Your task to perform on an android device: Search for "sony triple a" on amazon.com, select the first entry, and add it to the cart. Image 0: 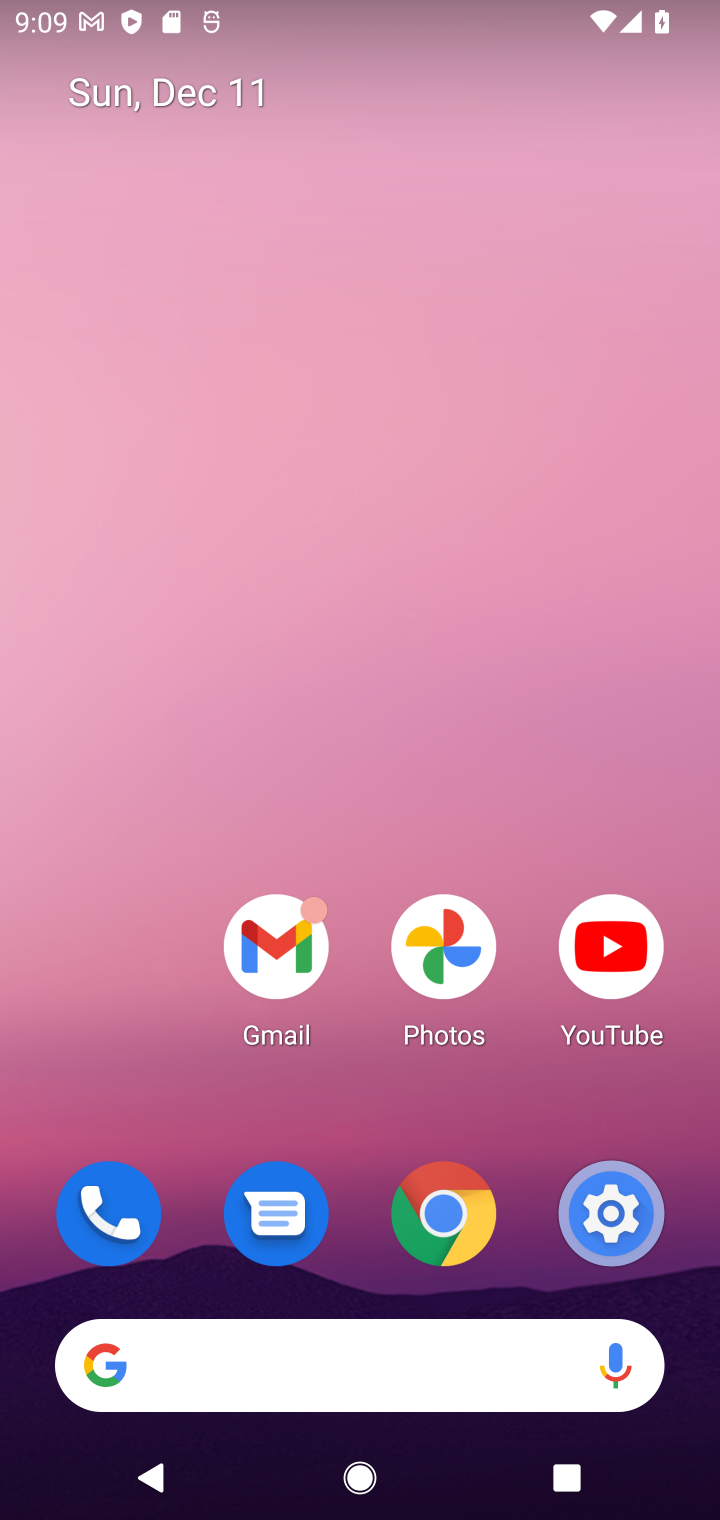
Step 0: click (358, 1351)
Your task to perform on an android device: Search for "sony triple a" on amazon.com, select the first entry, and add it to the cart. Image 1: 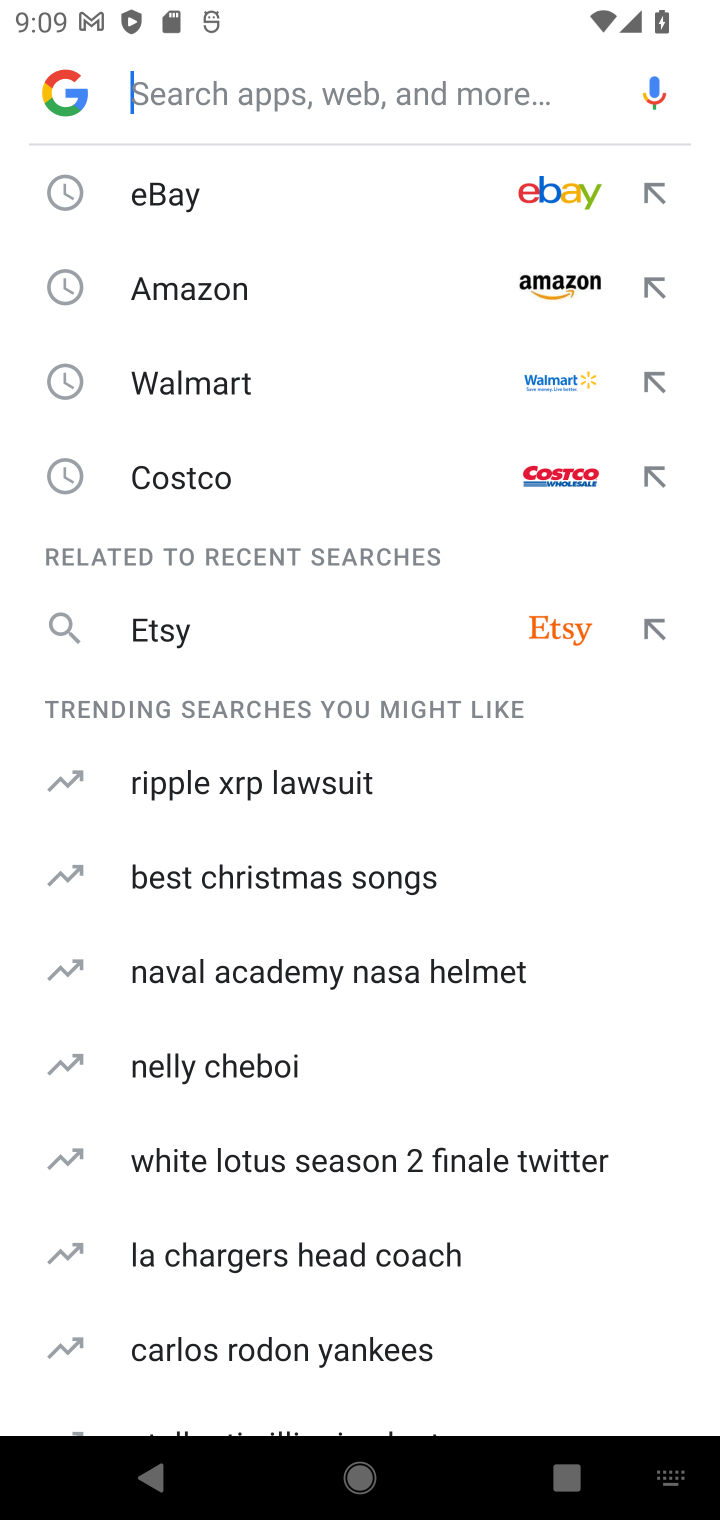
Step 1: type "sony triple a"
Your task to perform on an android device: Search for "sony triple a" on amazon.com, select the first entry, and add it to the cart. Image 2: 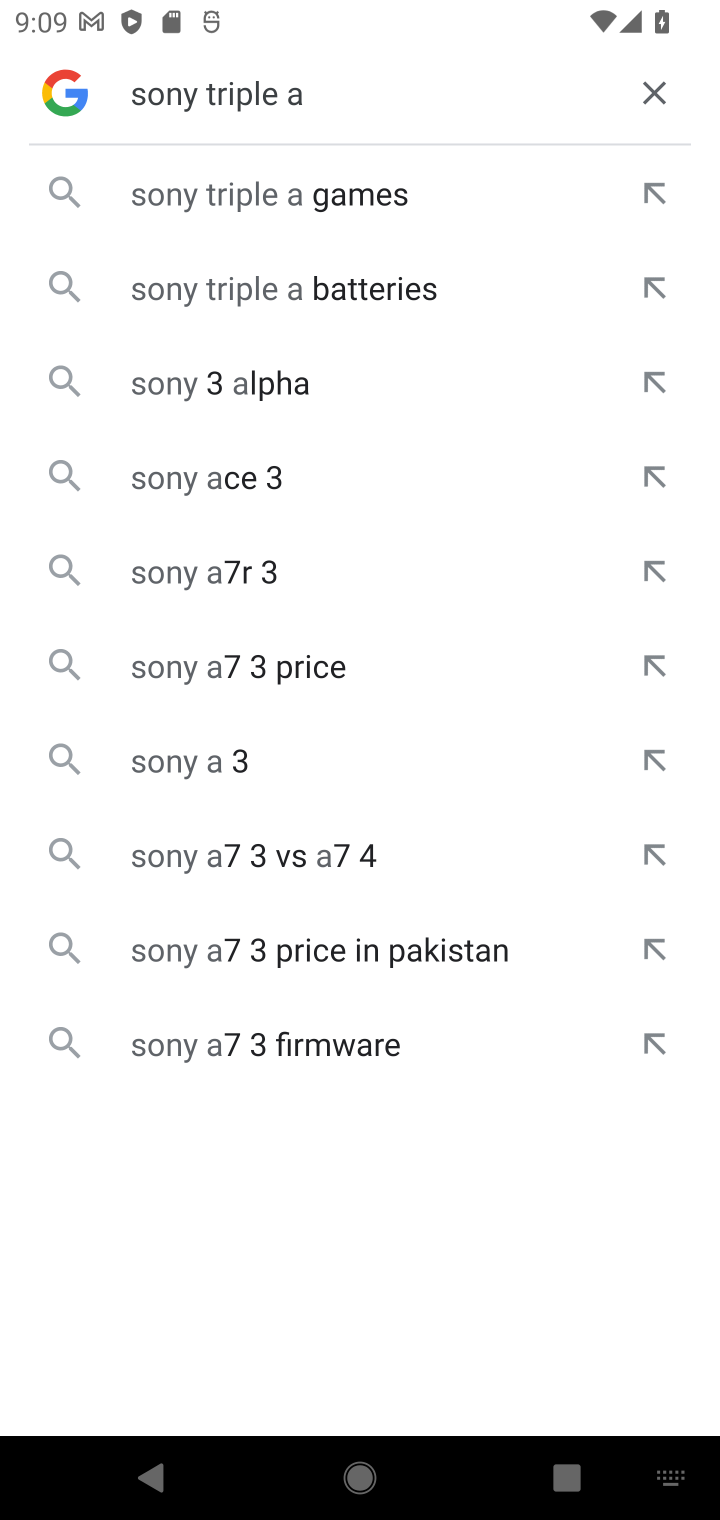
Step 2: click (653, 91)
Your task to perform on an android device: Search for "sony triple a" on amazon.com, select the first entry, and add it to the cart. Image 3: 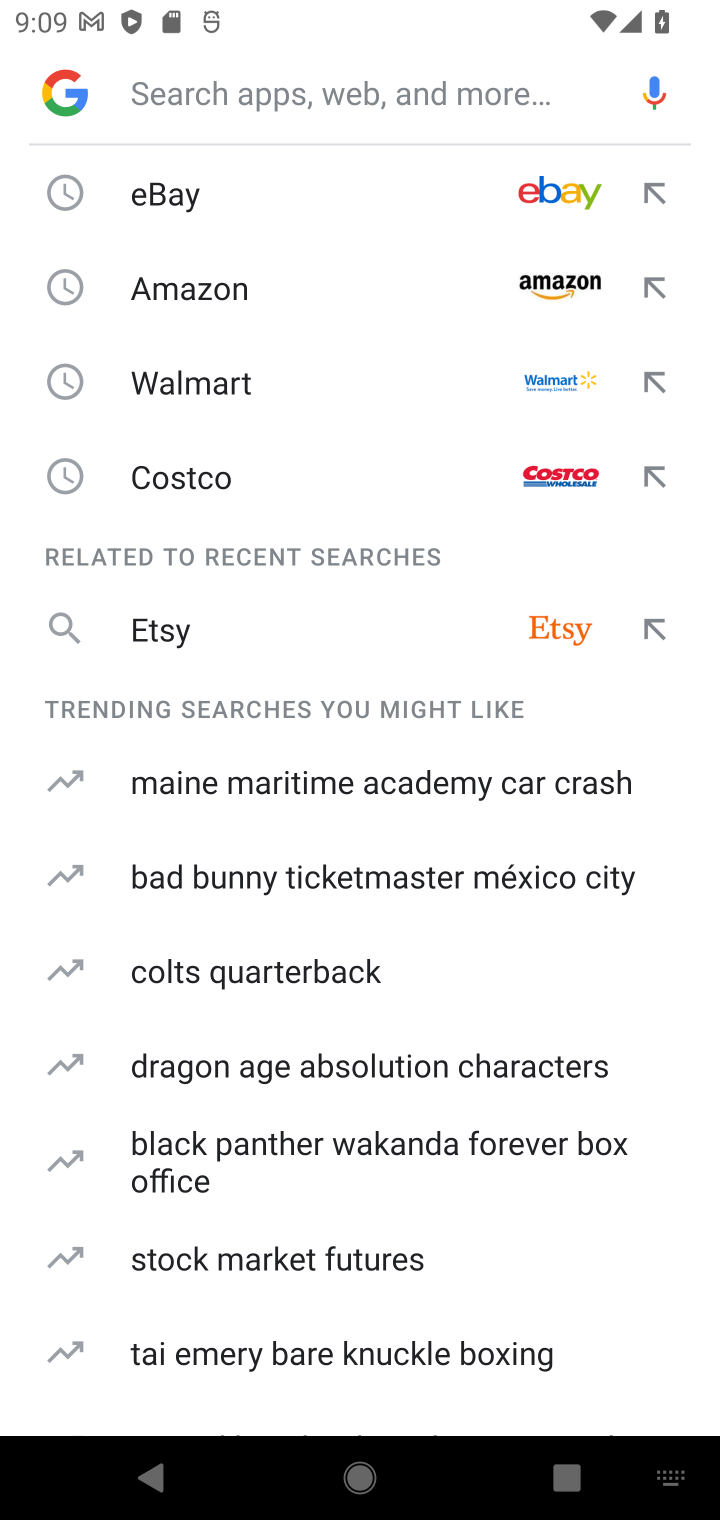
Step 3: type "amazon"
Your task to perform on an android device: Search for "sony triple a" on amazon.com, select the first entry, and add it to the cart. Image 4: 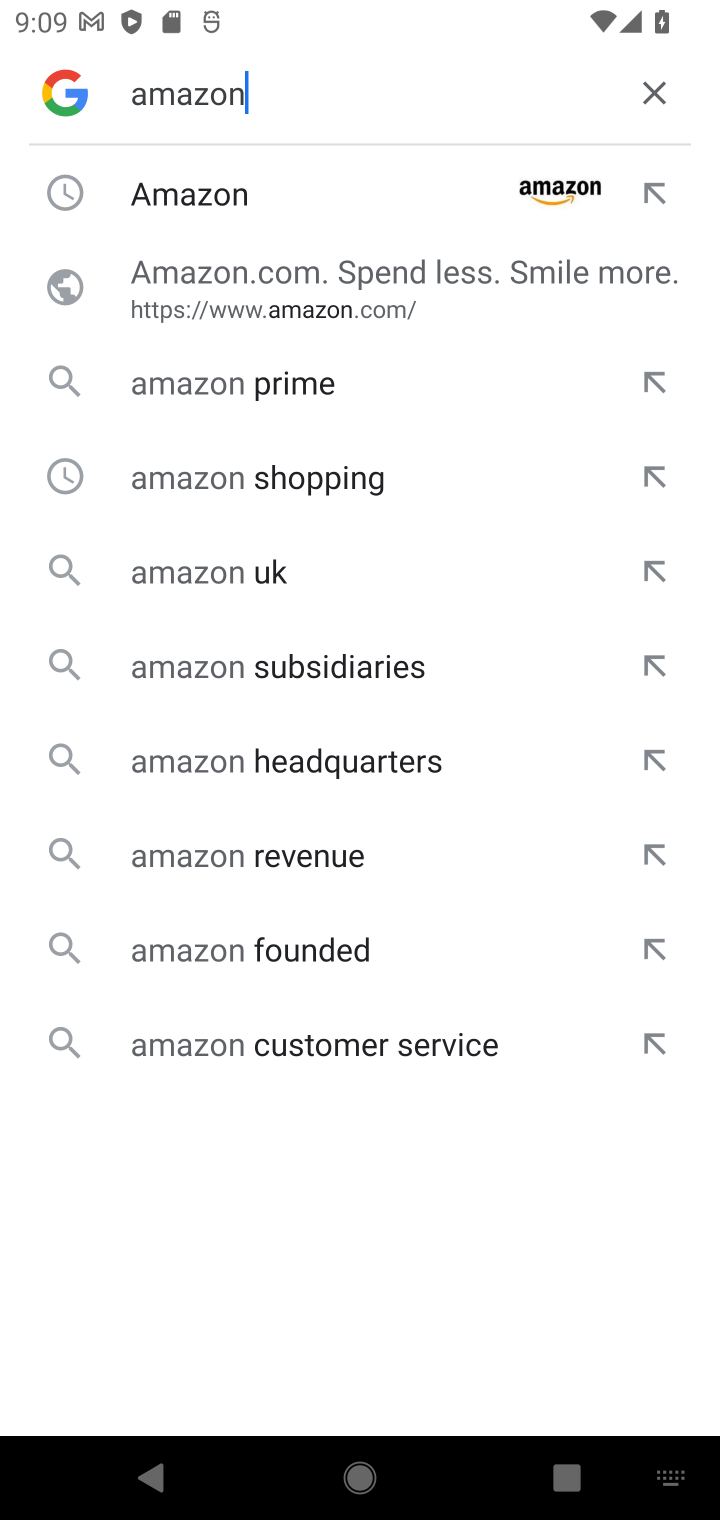
Step 4: click (302, 202)
Your task to perform on an android device: Search for "sony triple a" on amazon.com, select the first entry, and add it to the cart. Image 5: 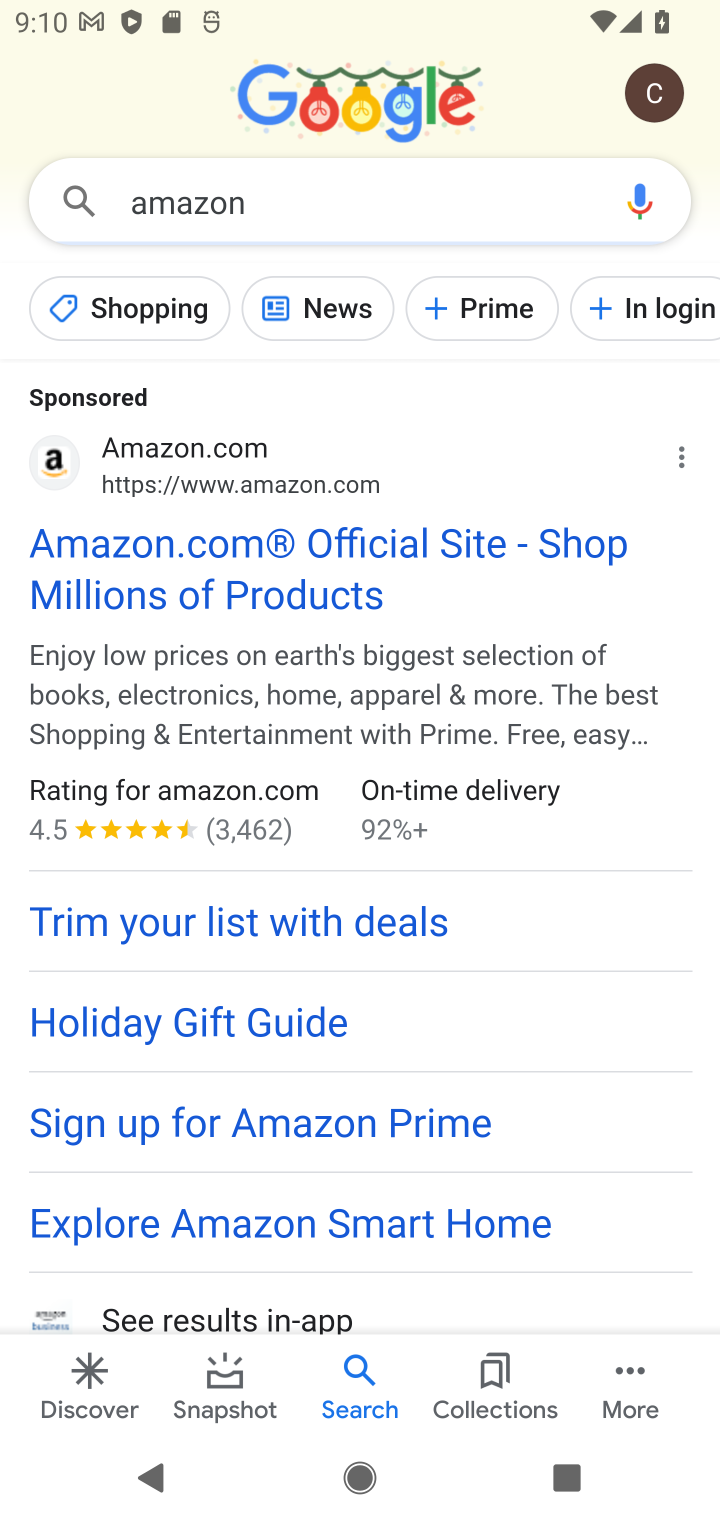
Step 5: click (237, 547)
Your task to perform on an android device: Search for "sony triple a" on amazon.com, select the first entry, and add it to the cart. Image 6: 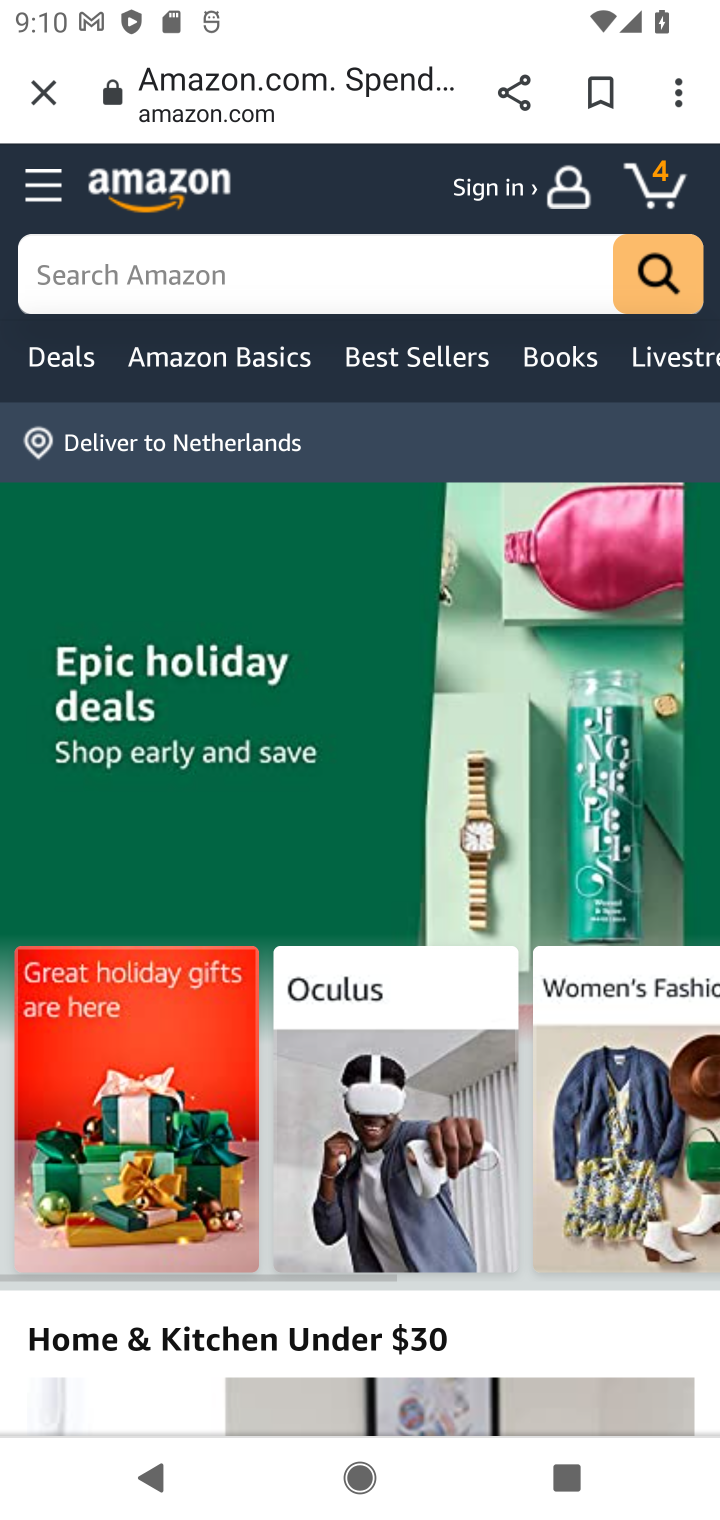
Step 6: click (371, 293)
Your task to perform on an android device: Search for "sony triple a" on amazon.com, select the first entry, and add it to the cart. Image 7: 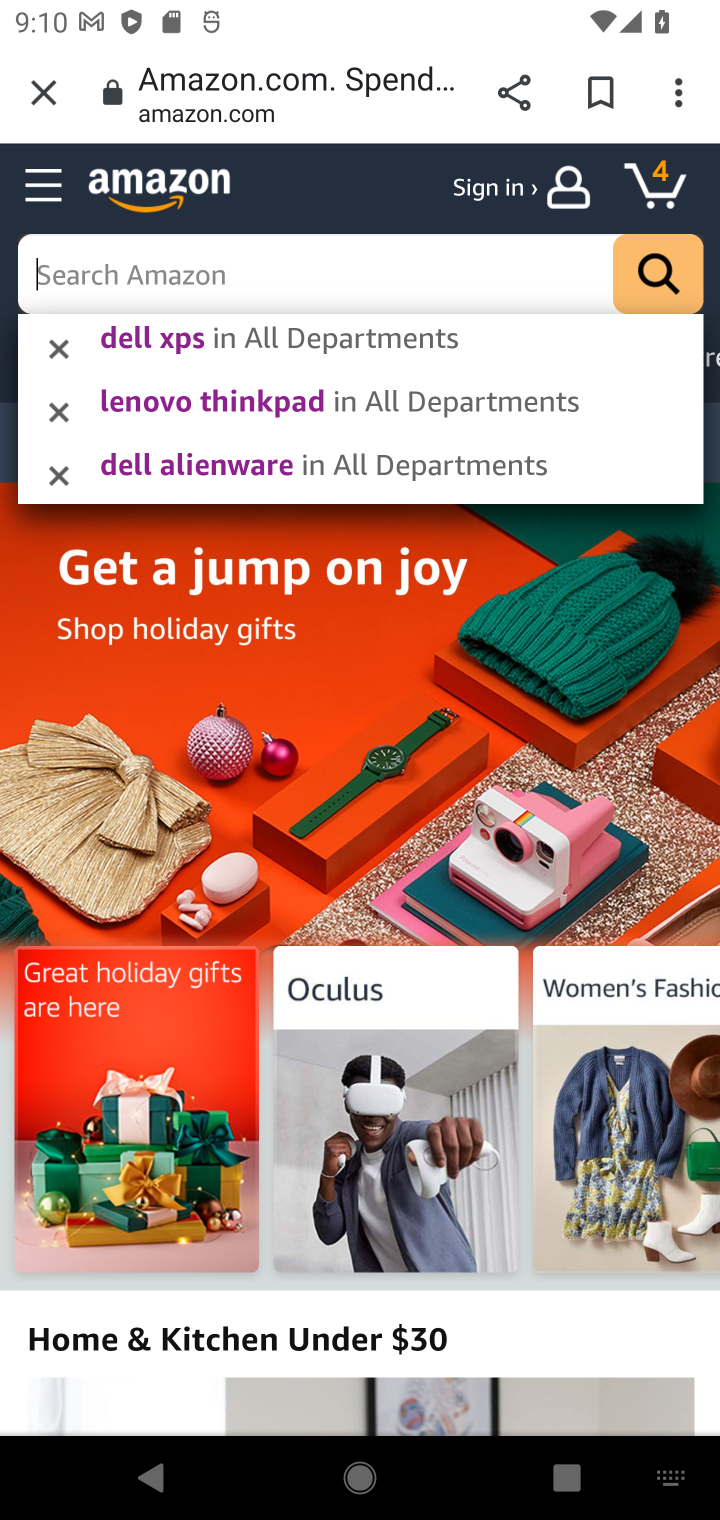
Step 7: type "sony triple a"
Your task to perform on an android device: Search for "sony triple a" on amazon.com, select the first entry, and add it to the cart. Image 8: 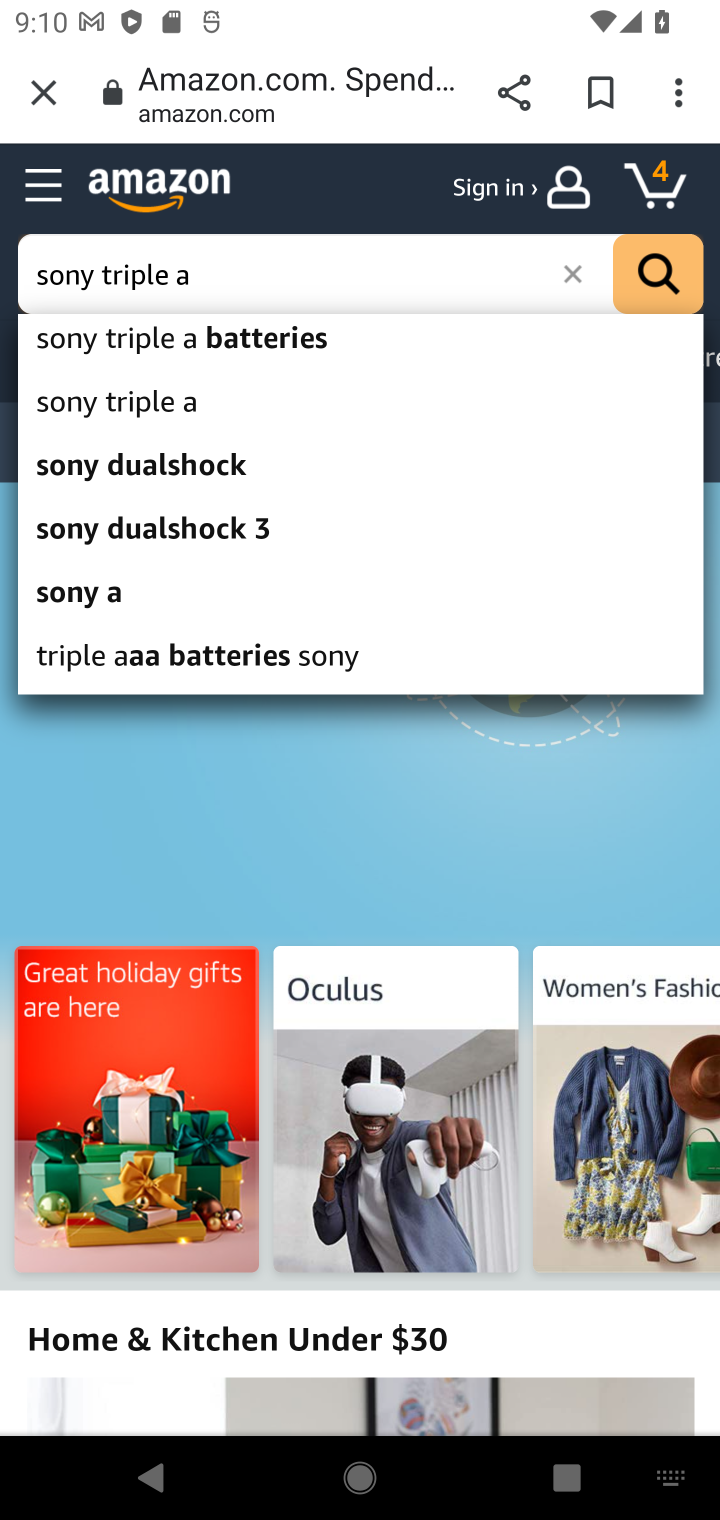
Step 8: click (409, 340)
Your task to perform on an android device: Search for "sony triple a" on amazon.com, select the first entry, and add it to the cart. Image 9: 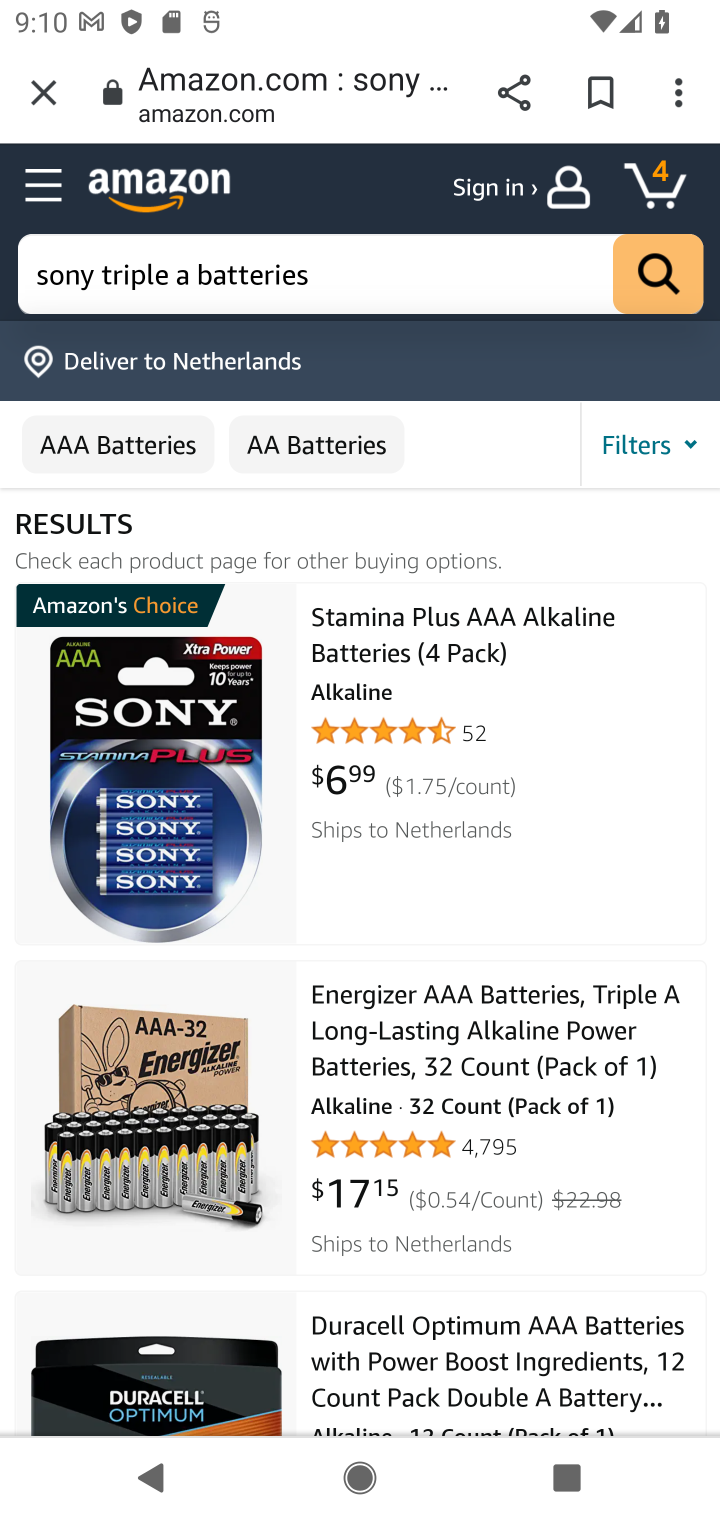
Step 9: click (412, 660)
Your task to perform on an android device: Search for "sony triple a" on amazon.com, select the first entry, and add it to the cart. Image 10: 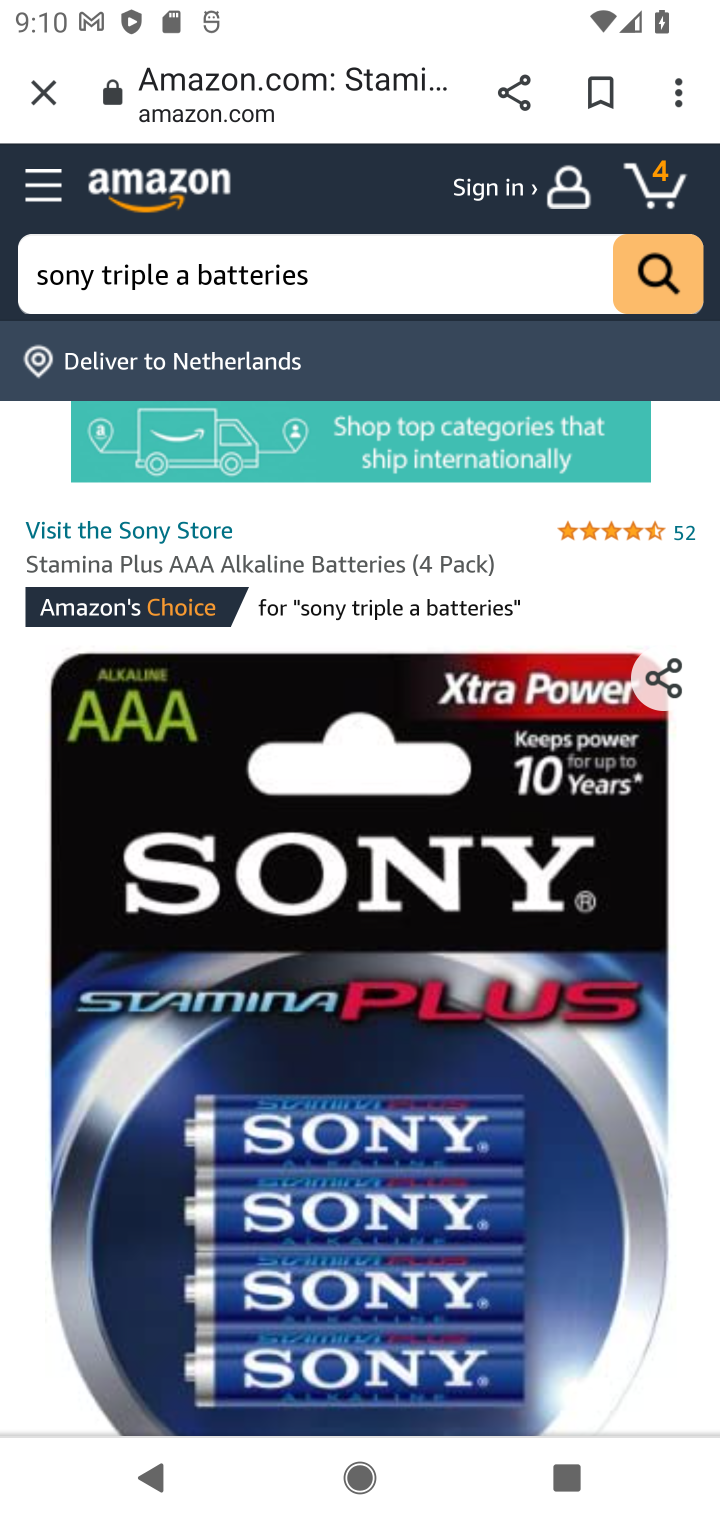
Step 10: drag from (469, 1223) to (429, 417)
Your task to perform on an android device: Search for "sony triple a" on amazon.com, select the first entry, and add it to the cart. Image 11: 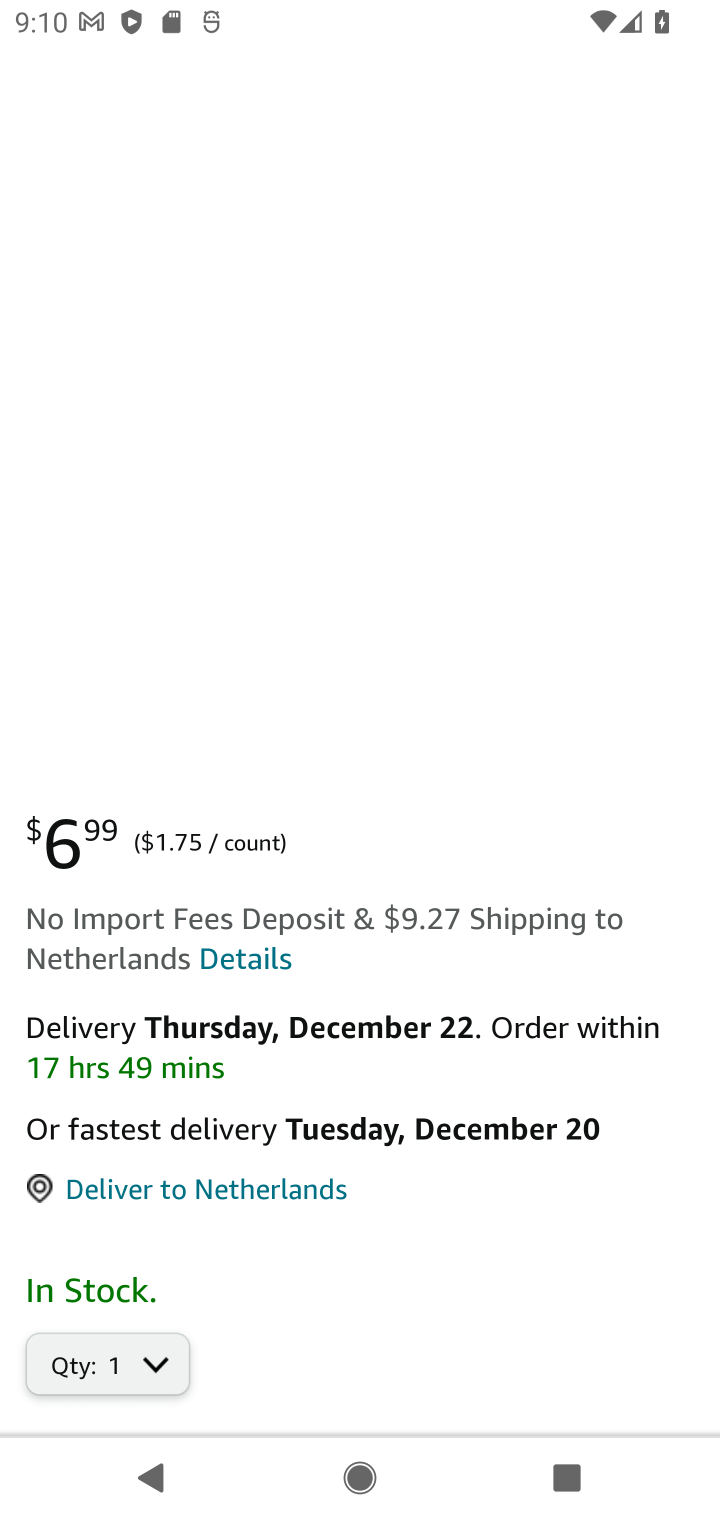
Step 11: drag from (472, 1247) to (362, 519)
Your task to perform on an android device: Search for "sony triple a" on amazon.com, select the first entry, and add it to the cart. Image 12: 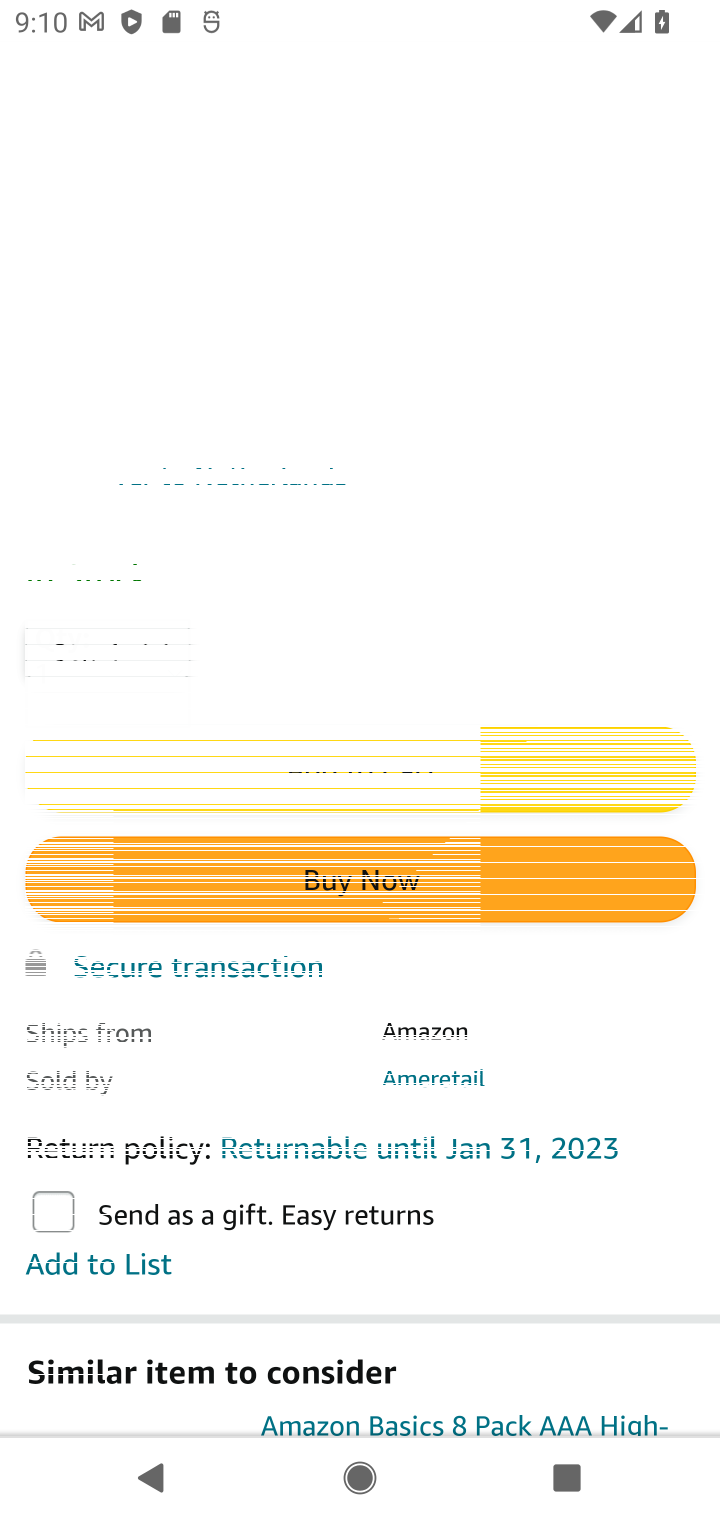
Step 12: click (336, 764)
Your task to perform on an android device: Search for "sony triple a" on amazon.com, select the first entry, and add it to the cart. Image 13: 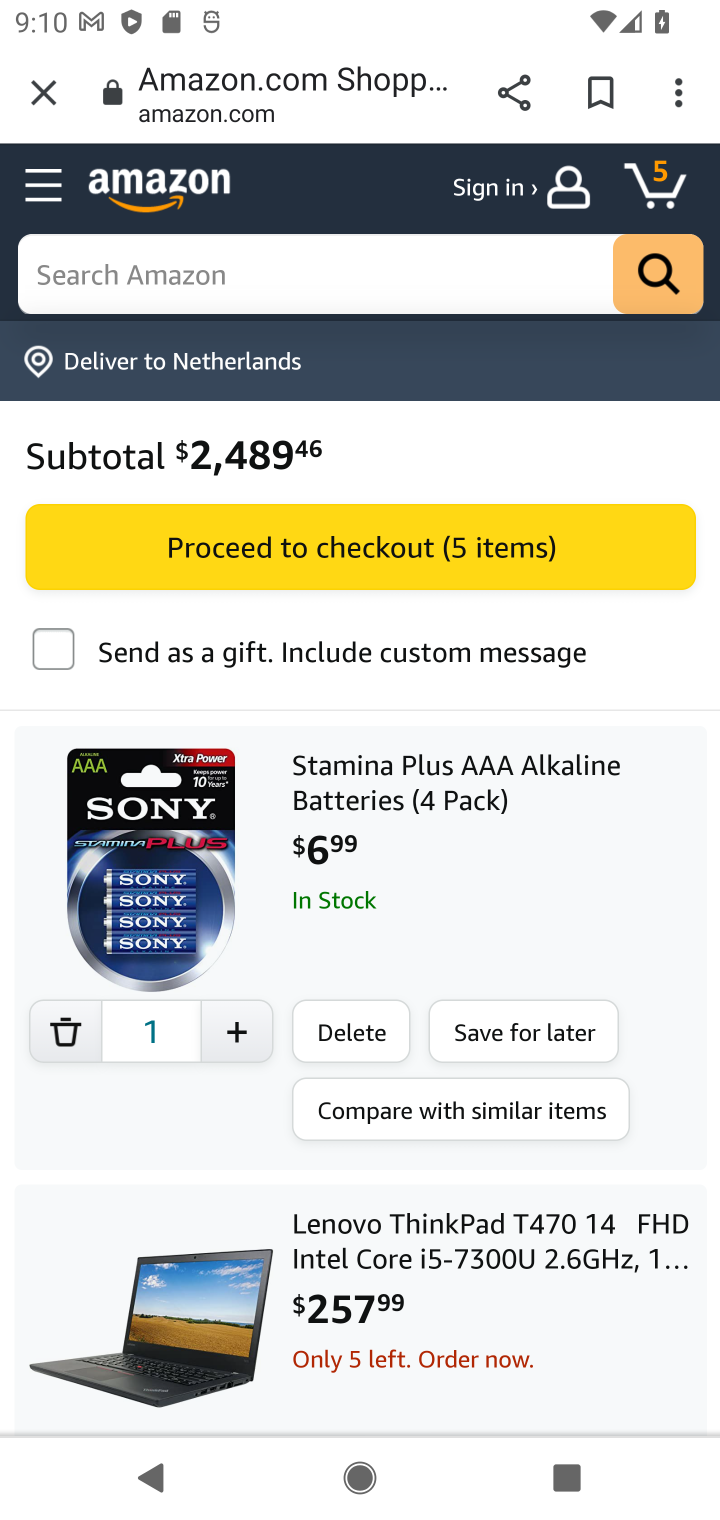
Step 13: task complete